Your task to perform on an android device: manage bookmarks in the chrome app Image 0: 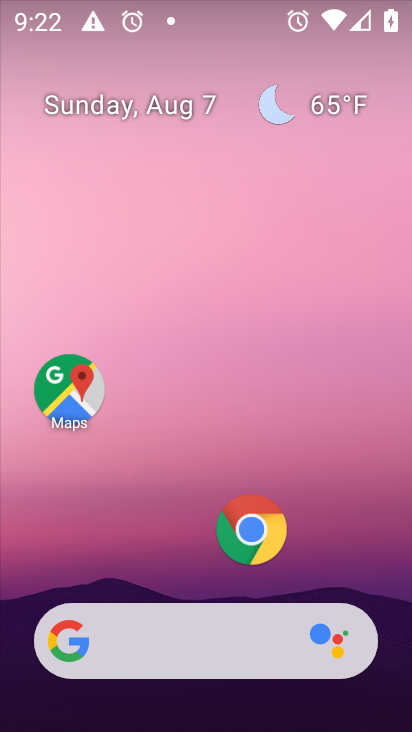
Step 0: click (243, 508)
Your task to perform on an android device: manage bookmarks in the chrome app Image 1: 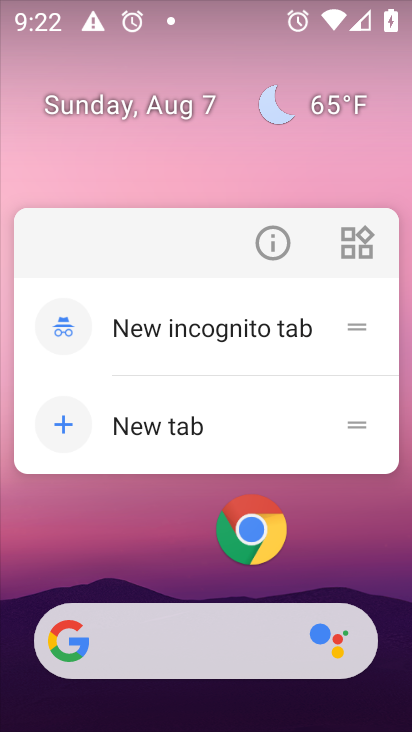
Step 1: click (242, 520)
Your task to perform on an android device: manage bookmarks in the chrome app Image 2: 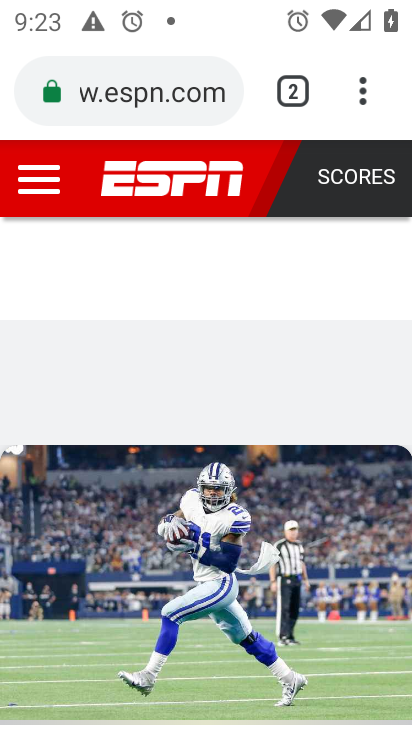
Step 2: click (357, 83)
Your task to perform on an android device: manage bookmarks in the chrome app Image 3: 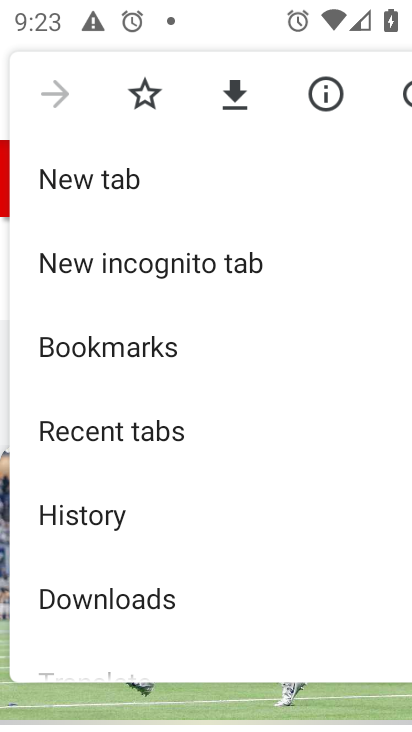
Step 3: click (123, 362)
Your task to perform on an android device: manage bookmarks in the chrome app Image 4: 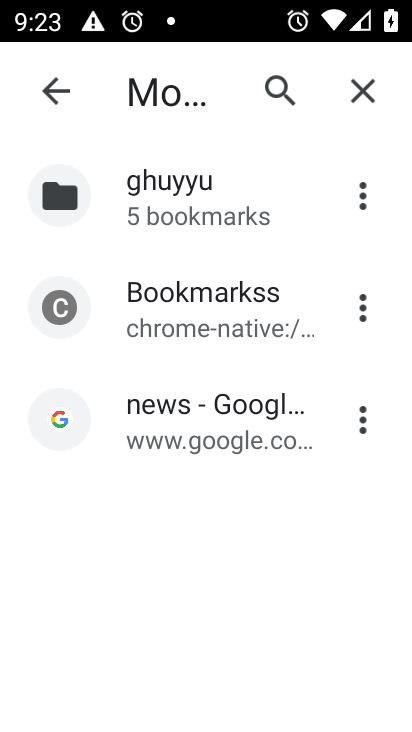
Step 4: click (362, 414)
Your task to perform on an android device: manage bookmarks in the chrome app Image 5: 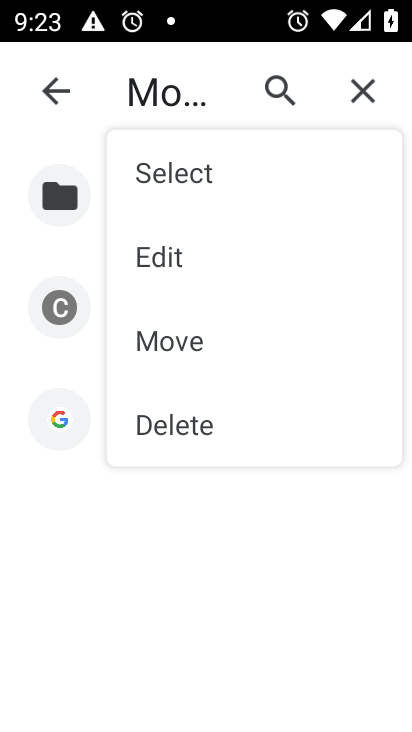
Step 5: click (168, 267)
Your task to perform on an android device: manage bookmarks in the chrome app Image 6: 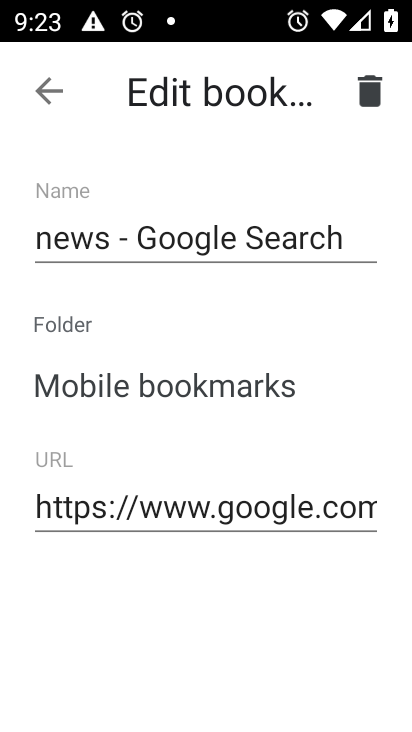
Step 6: click (176, 262)
Your task to perform on an android device: manage bookmarks in the chrome app Image 7: 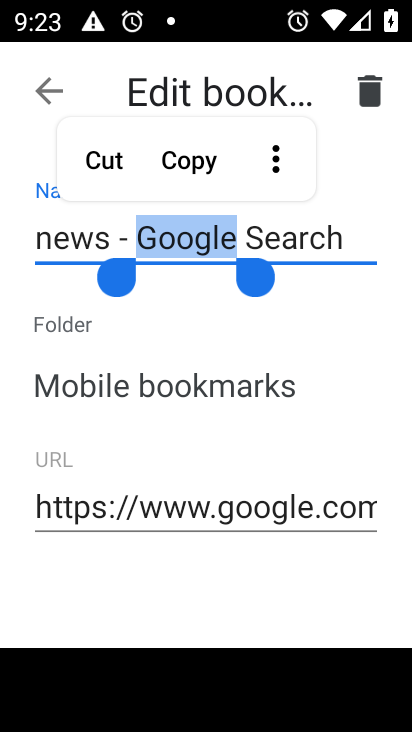
Step 7: type "trakme"
Your task to perform on an android device: manage bookmarks in the chrome app Image 8: 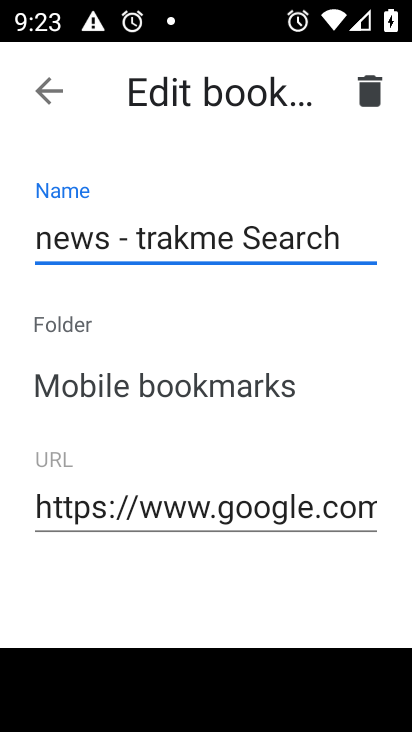
Step 8: click (36, 83)
Your task to perform on an android device: manage bookmarks in the chrome app Image 9: 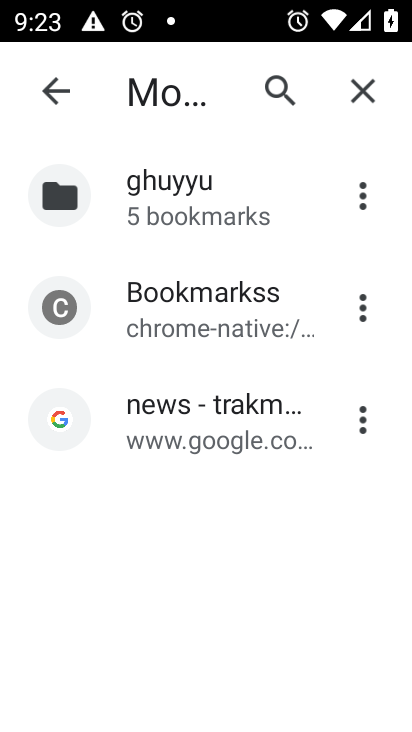
Step 9: task complete